Your task to perform on an android device: Show me popular games on the Play Store Image 0: 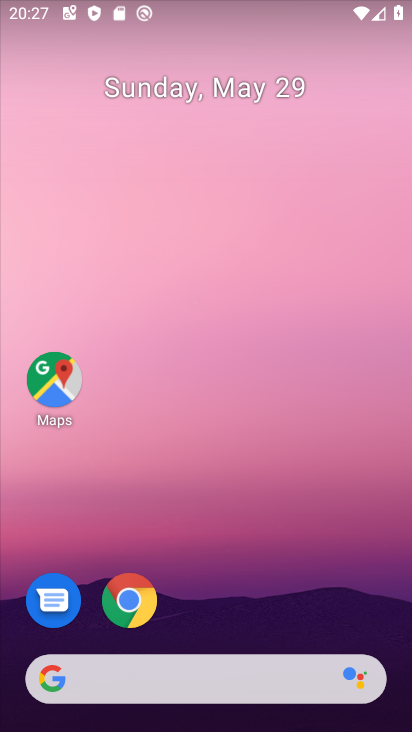
Step 0: drag from (358, 582) to (348, 232)
Your task to perform on an android device: Show me popular games on the Play Store Image 1: 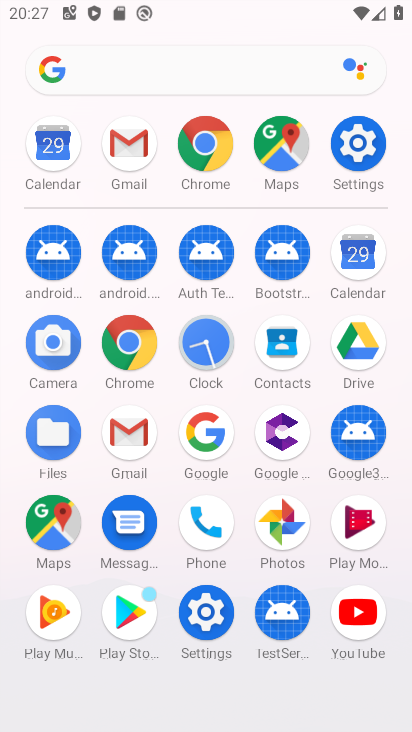
Step 1: click (146, 615)
Your task to perform on an android device: Show me popular games on the Play Store Image 2: 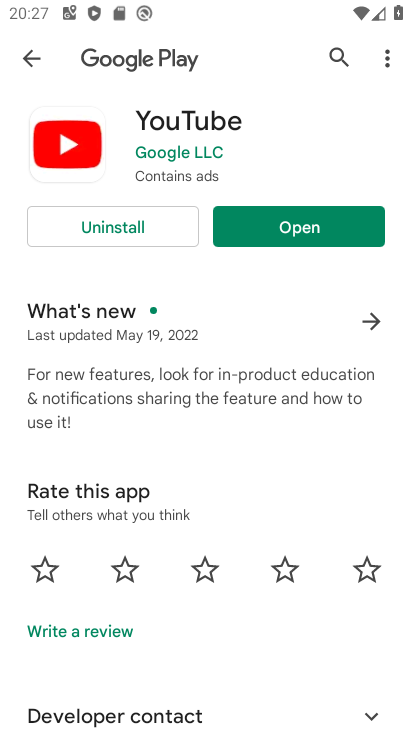
Step 2: click (27, 62)
Your task to perform on an android device: Show me popular games on the Play Store Image 3: 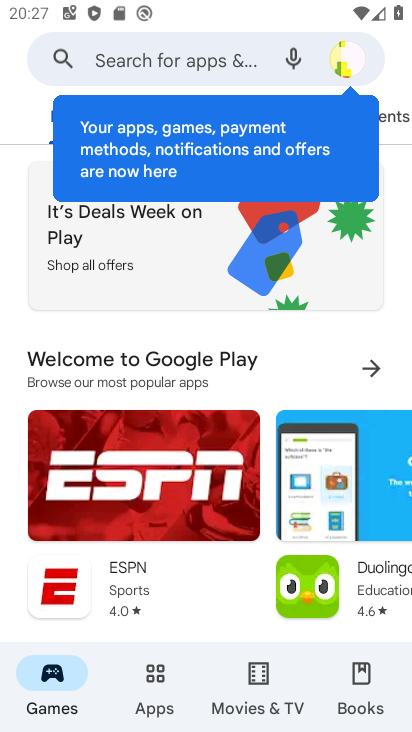
Step 3: click (150, 686)
Your task to perform on an android device: Show me popular games on the Play Store Image 4: 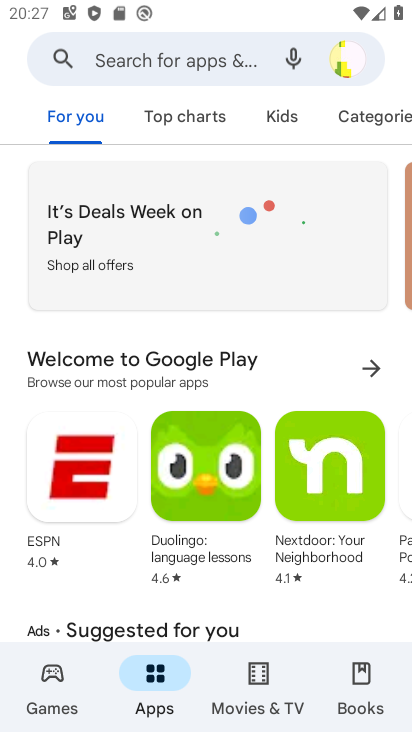
Step 4: click (55, 677)
Your task to perform on an android device: Show me popular games on the Play Store Image 5: 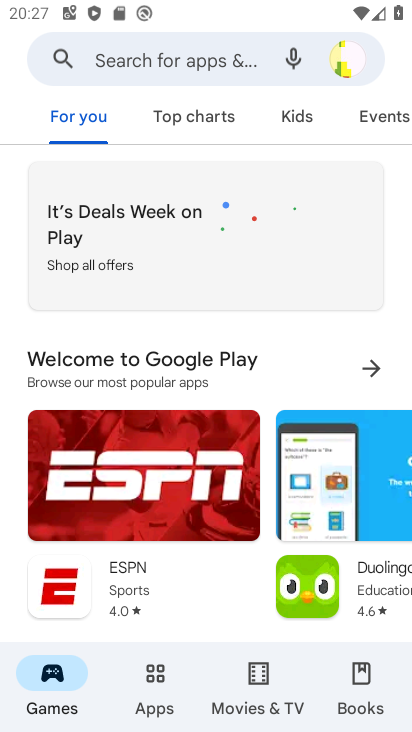
Step 5: click (183, 116)
Your task to perform on an android device: Show me popular games on the Play Store Image 6: 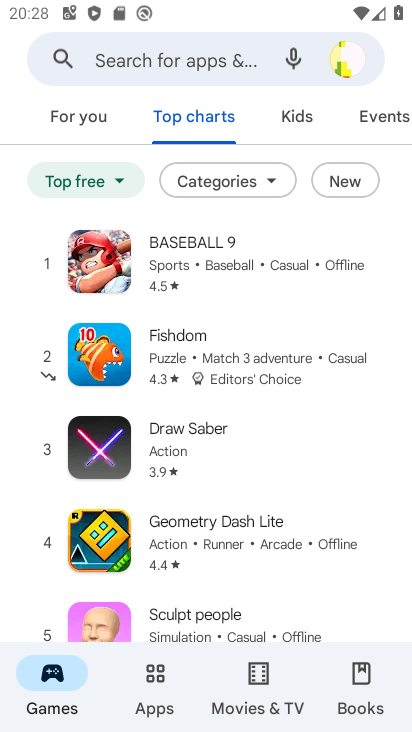
Step 6: task complete